Your task to perform on an android device: delete location history Image 0: 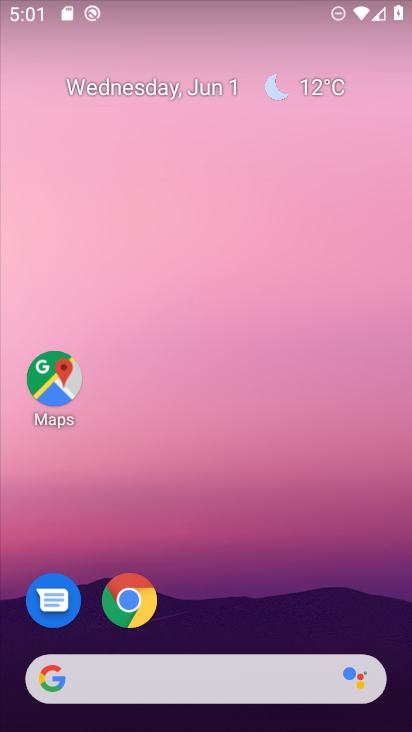
Step 0: drag from (222, 587) to (206, 23)
Your task to perform on an android device: delete location history Image 1: 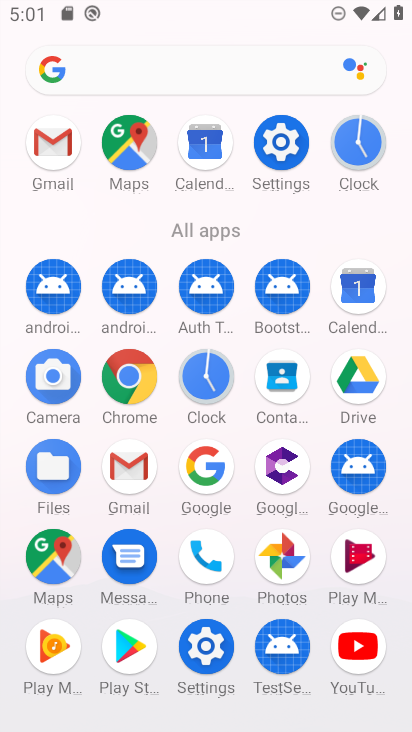
Step 1: click (132, 143)
Your task to perform on an android device: delete location history Image 2: 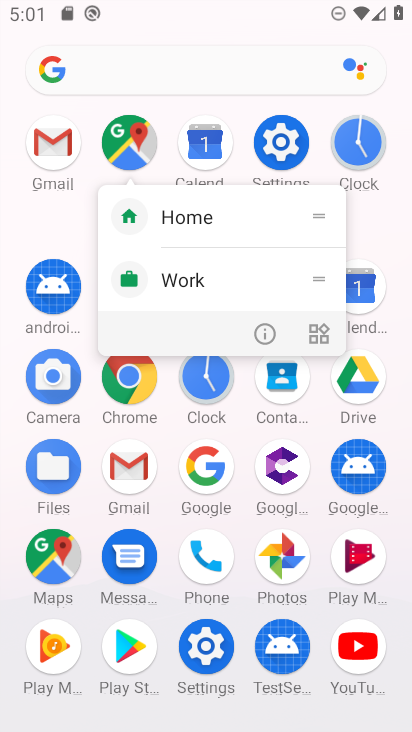
Step 2: click (128, 150)
Your task to perform on an android device: delete location history Image 3: 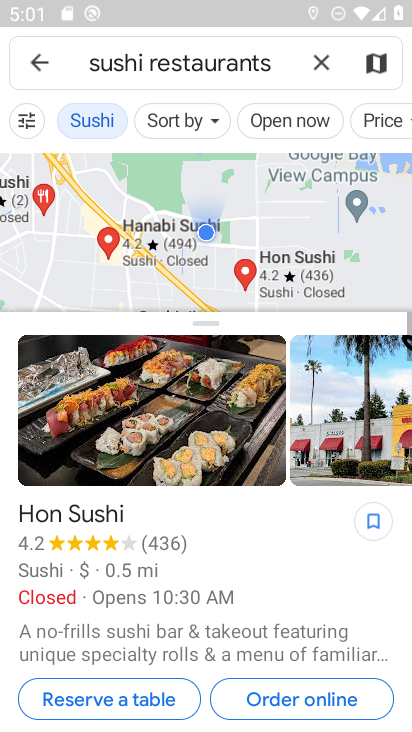
Step 3: click (314, 54)
Your task to perform on an android device: delete location history Image 4: 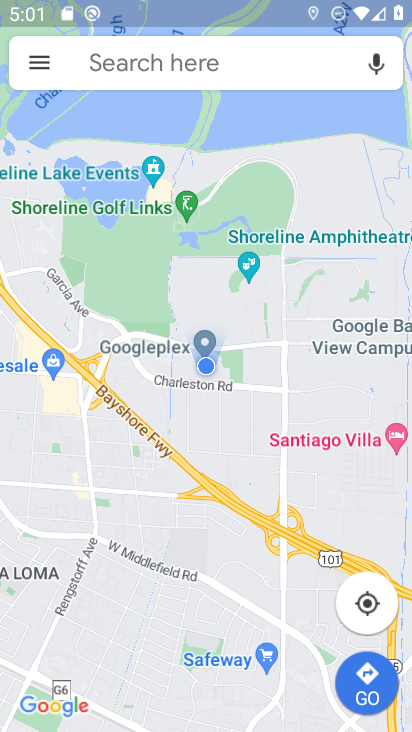
Step 4: click (37, 62)
Your task to perform on an android device: delete location history Image 5: 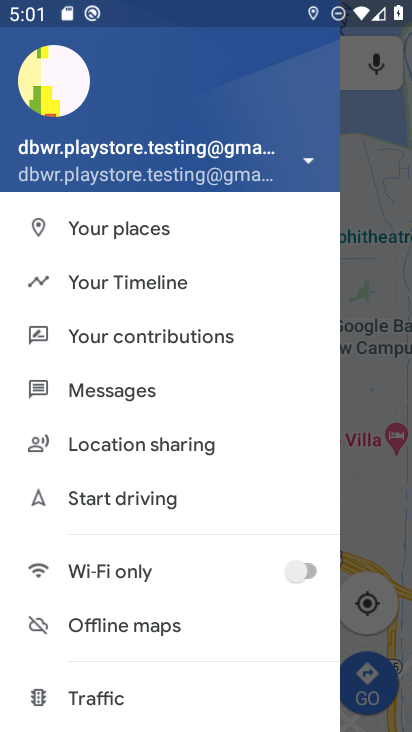
Step 5: drag from (100, 412) to (126, 316)
Your task to perform on an android device: delete location history Image 6: 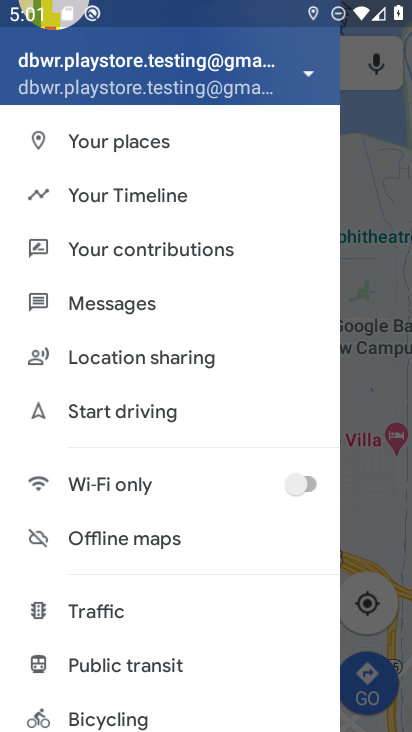
Step 6: drag from (112, 454) to (138, 369)
Your task to perform on an android device: delete location history Image 7: 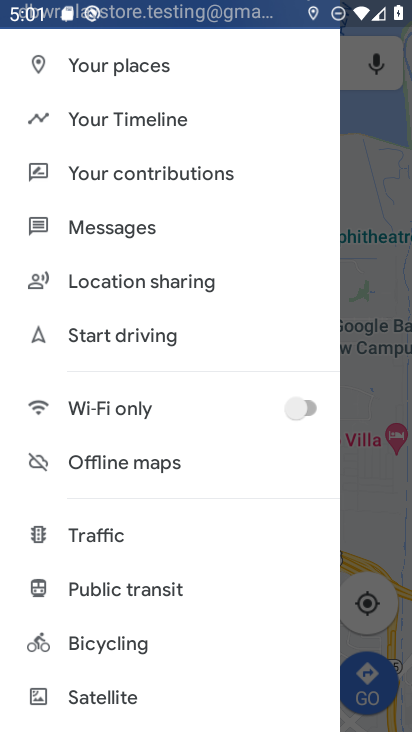
Step 7: drag from (111, 487) to (126, 407)
Your task to perform on an android device: delete location history Image 8: 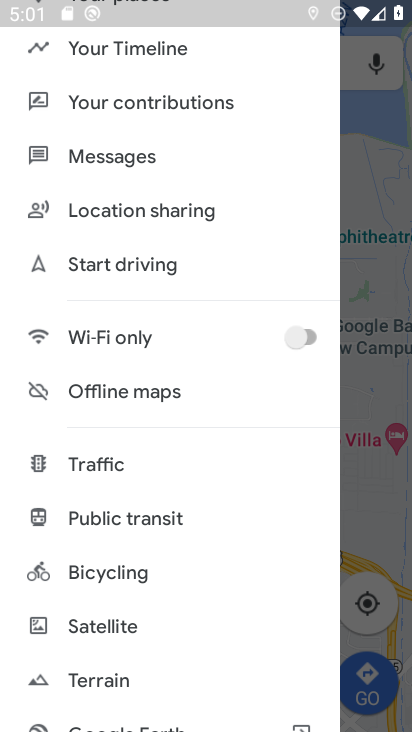
Step 8: drag from (99, 490) to (115, 391)
Your task to perform on an android device: delete location history Image 9: 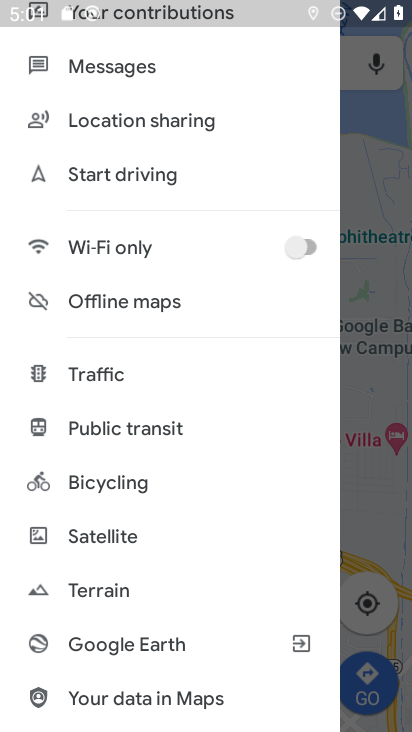
Step 9: drag from (84, 505) to (103, 414)
Your task to perform on an android device: delete location history Image 10: 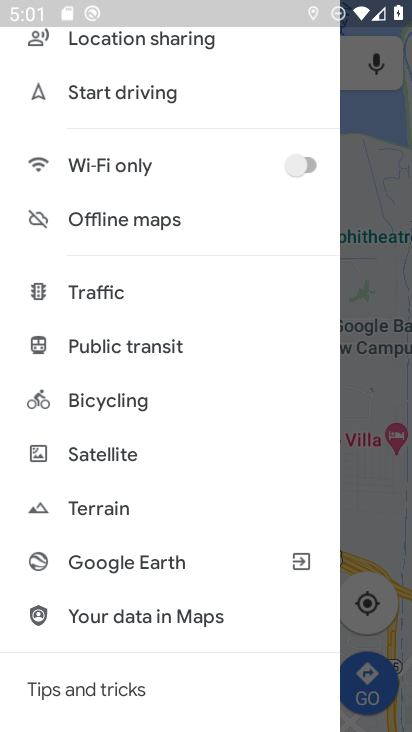
Step 10: drag from (87, 529) to (109, 416)
Your task to perform on an android device: delete location history Image 11: 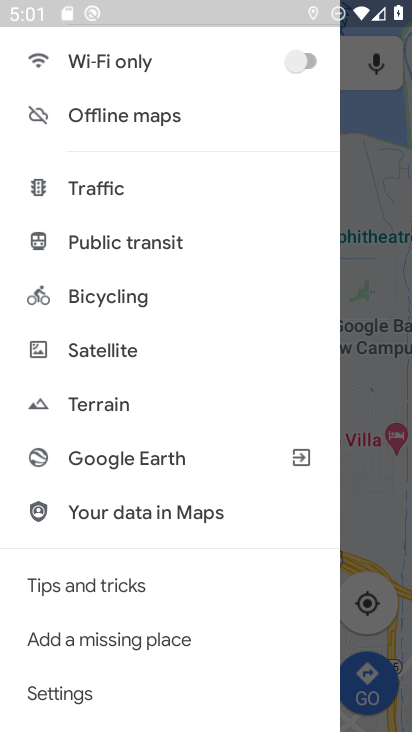
Step 11: drag from (76, 488) to (88, 384)
Your task to perform on an android device: delete location history Image 12: 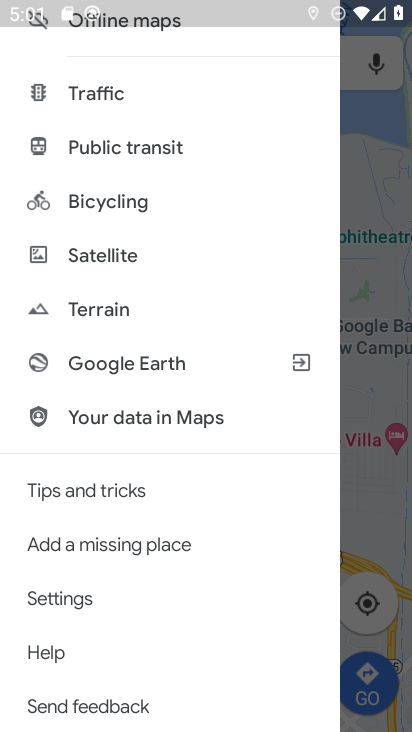
Step 12: click (66, 597)
Your task to perform on an android device: delete location history Image 13: 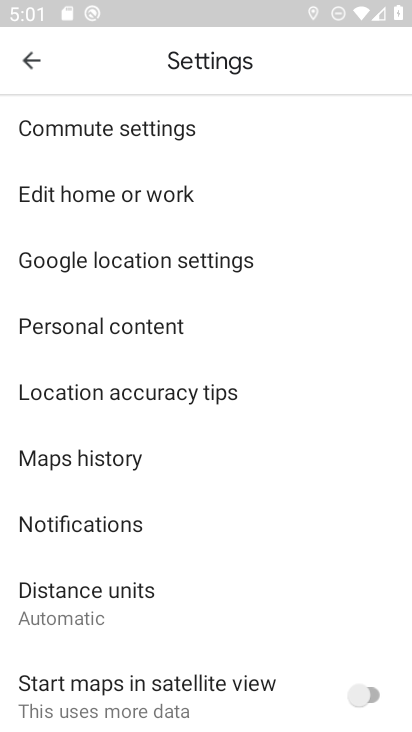
Step 13: click (151, 324)
Your task to perform on an android device: delete location history Image 14: 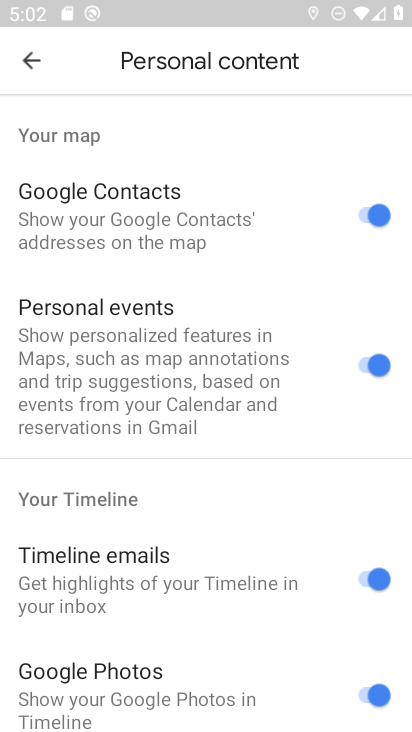
Step 14: drag from (149, 532) to (161, 447)
Your task to perform on an android device: delete location history Image 15: 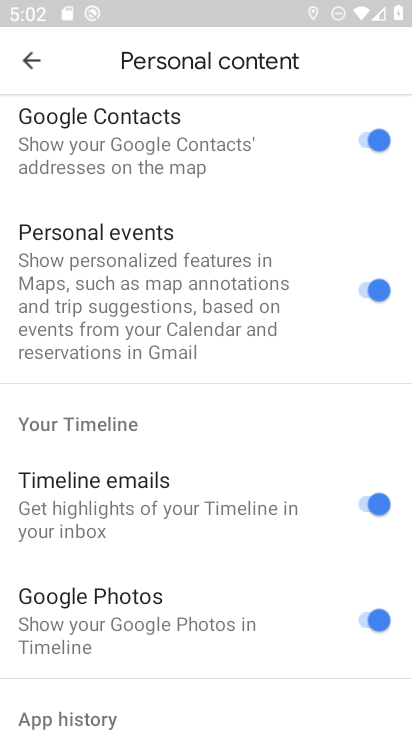
Step 15: drag from (153, 553) to (194, 442)
Your task to perform on an android device: delete location history Image 16: 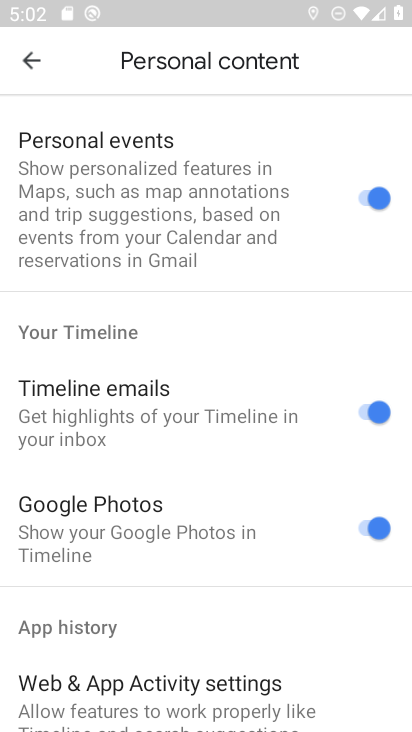
Step 16: drag from (142, 607) to (196, 437)
Your task to perform on an android device: delete location history Image 17: 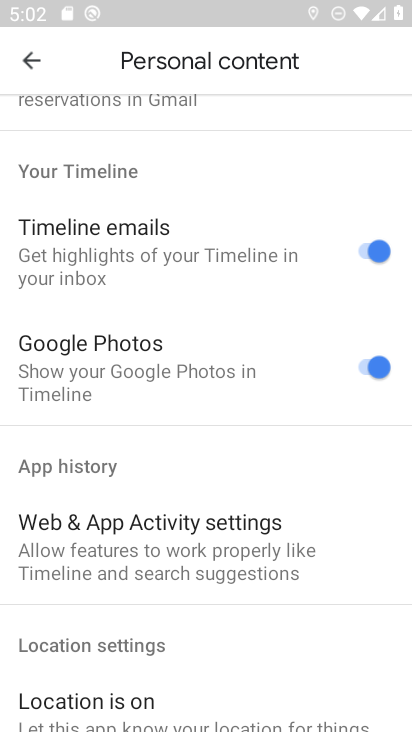
Step 17: drag from (174, 471) to (196, 323)
Your task to perform on an android device: delete location history Image 18: 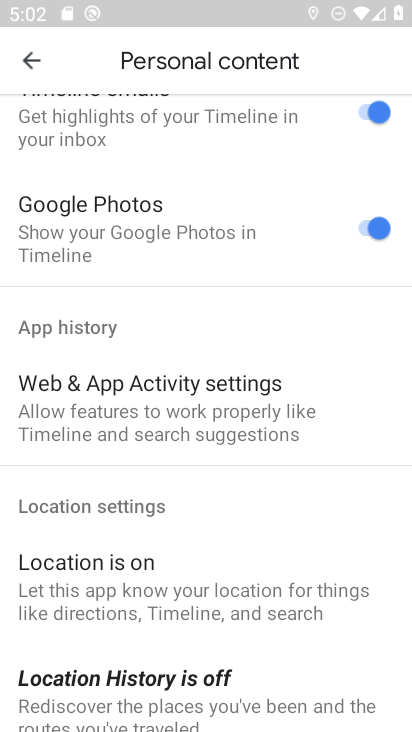
Step 18: drag from (202, 542) to (209, 379)
Your task to perform on an android device: delete location history Image 19: 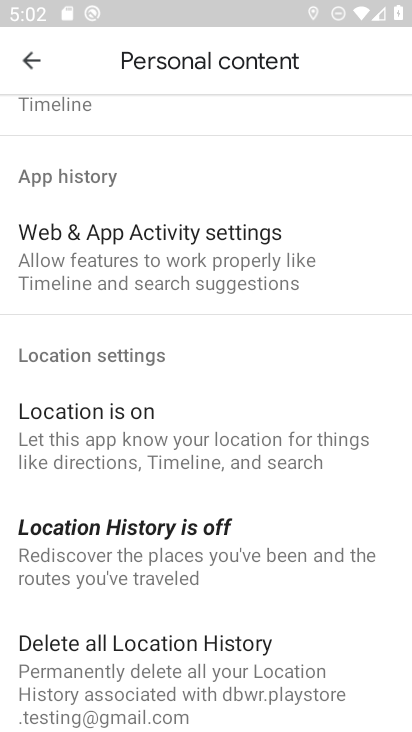
Step 19: drag from (170, 601) to (178, 308)
Your task to perform on an android device: delete location history Image 20: 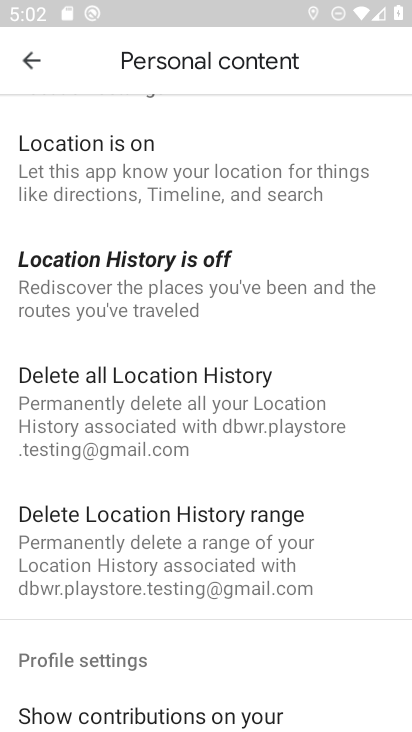
Step 20: click (207, 368)
Your task to perform on an android device: delete location history Image 21: 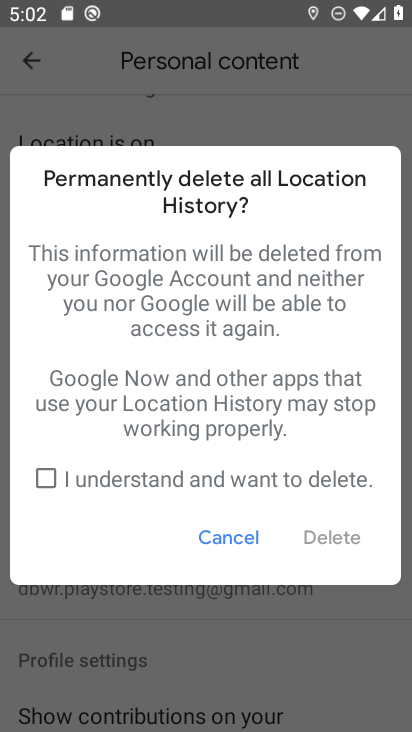
Step 21: click (49, 466)
Your task to perform on an android device: delete location history Image 22: 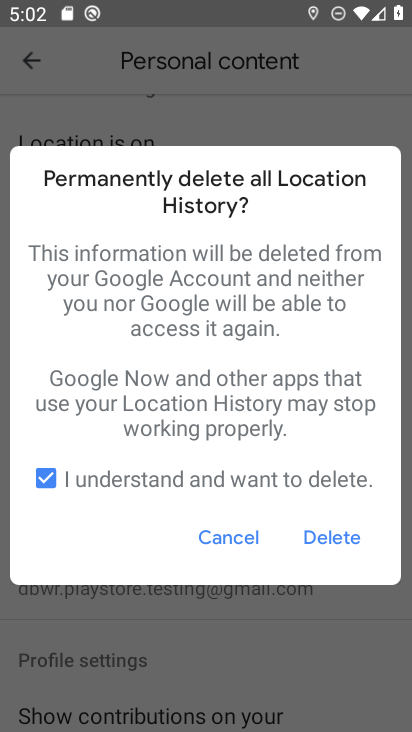
Step 22: click (335, 537)
Your task to perform on an android device: delete location history Image 23: 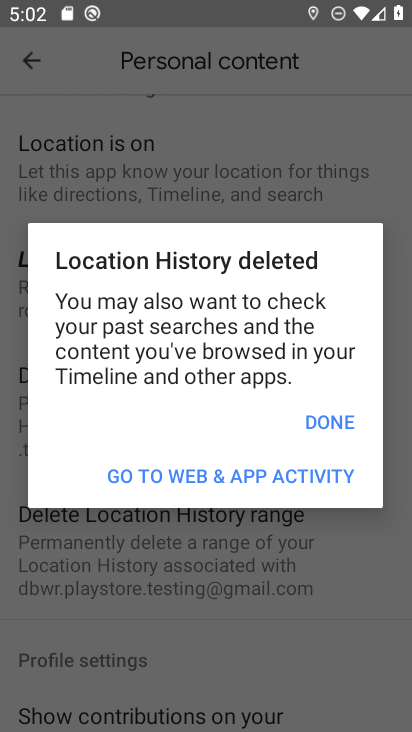
Step 23: click (334, 426)
Your task to perform on an android device: delete location history Image 24: 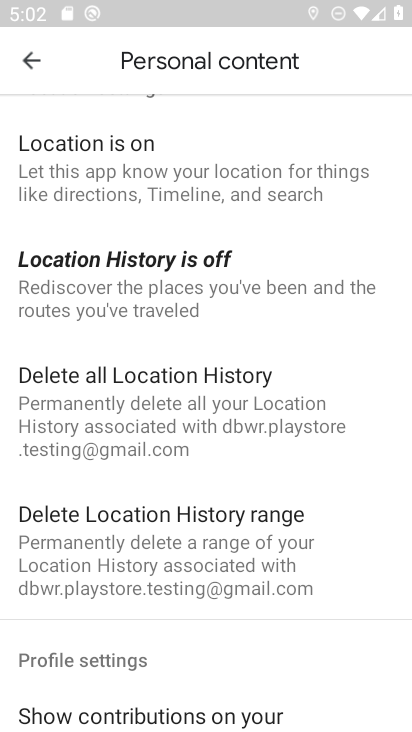
Step 24: task complete